Your task to perform on an android device: When is my next meeting? Image 0: 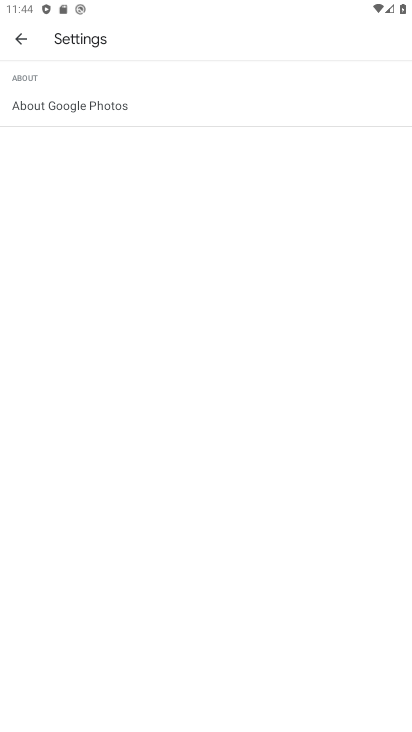
Step 0: drag from (203, 633) to (290, 86)
Your task to perform on an android device: When is my next meeting? Image 1: 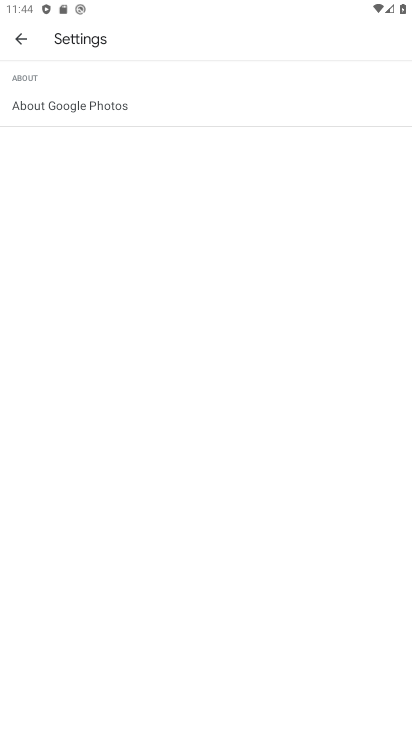
Step 1: press back button
Your task to perform on an android device: When is my next meeting? Image 2: 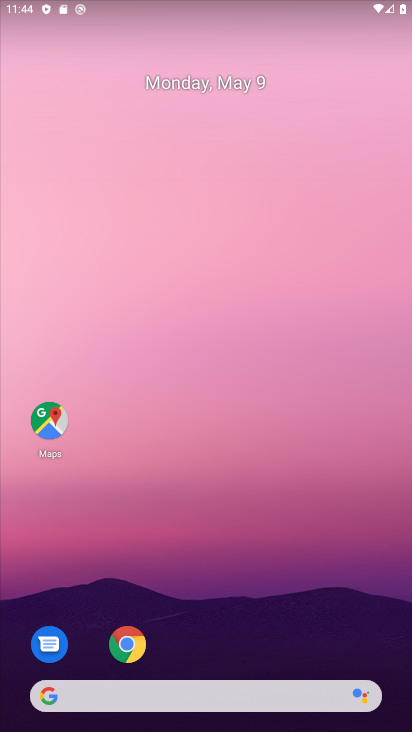
Step 2: drag from (208, 669) to (248, 83)
Your task to perform on an android device: When is my next meeting? Image 3: 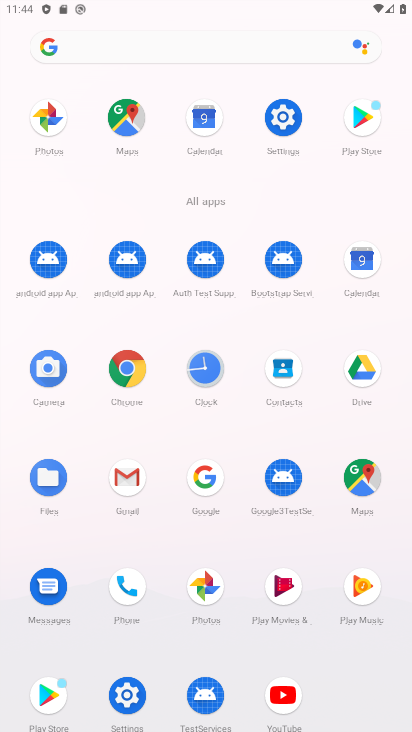
Step 3: click (365, 257)
Your task to perform on an android device: When is my next meeting? Image 4: 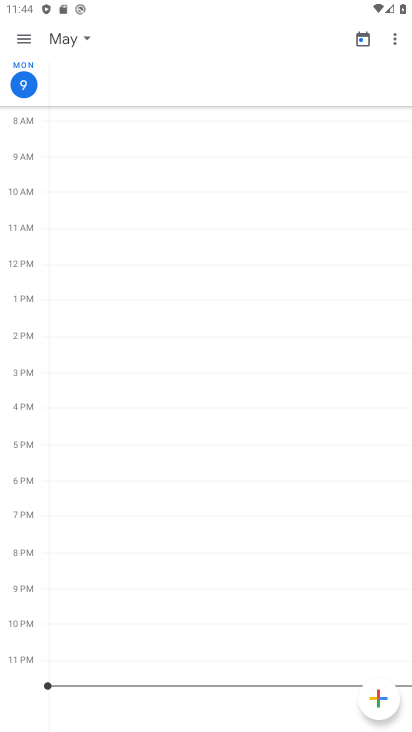
Step 4: click (22, 26)
Your task to perform on an android device: When is my next meeting? Image 5: 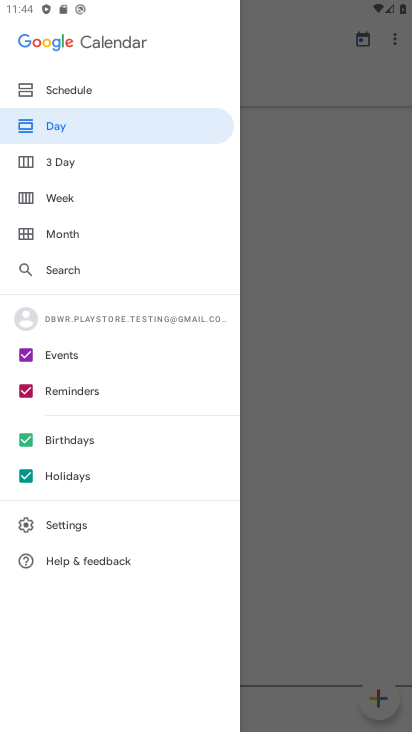
Step 5: click (72, 87)
Your task to perform on an android device: When is my next meeting? Image 6: 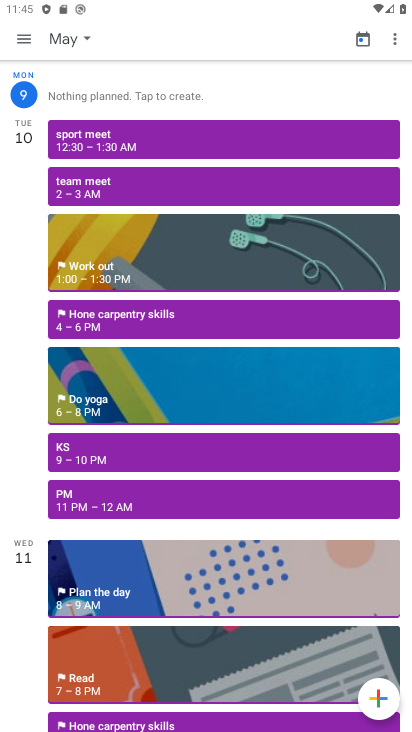
Step 6: click (99, 192)
Your task to perform on an android device: When is my next meeting? Image 7: 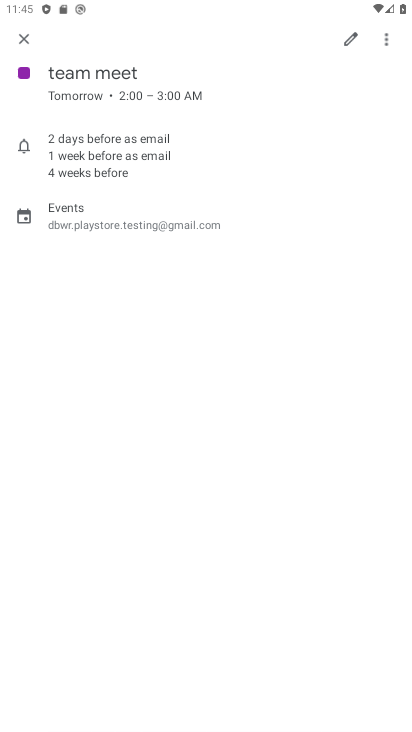
Step 7: task complete